Your task to perform on an android device: Open Google Maps and go to "Timeline" Image 0: 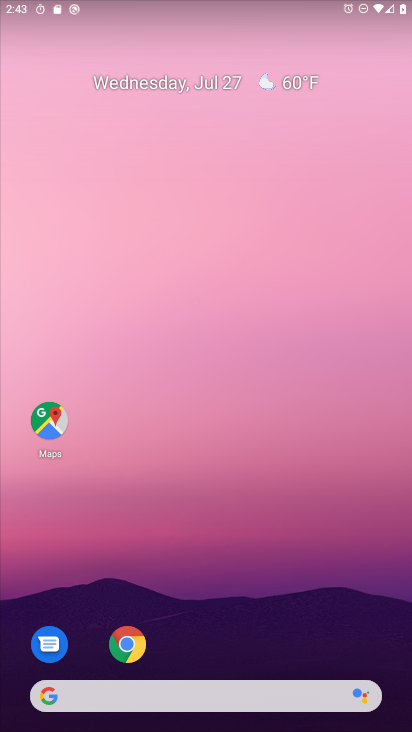
Step 0: drag from (239, 608) to (403, 671)
Your task to perform on an android device: Open Google Maps and go to "Timeline" Image 1: 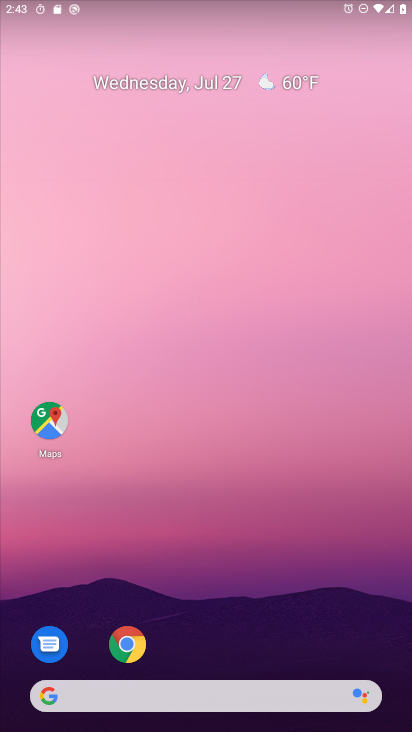
Step 1: click (40, 419)
Your task to perform on an android device: Open Google Maps and go to "Timeline" Image 2: 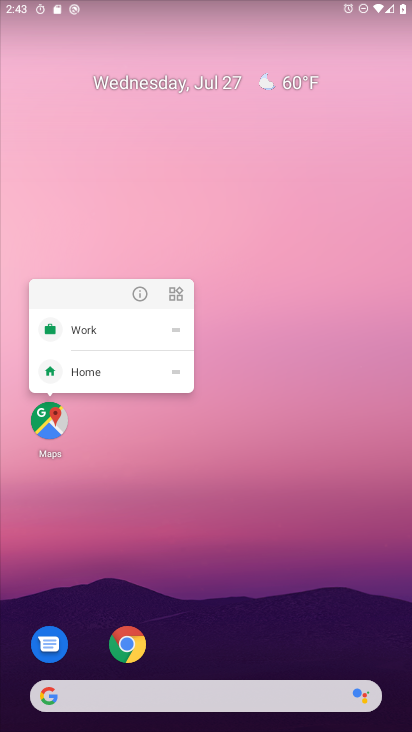
Step 2: drag from (160, 620) to (220, 304)
Your task to perform on an android device: Open Google Maps and go to "Timeline" Image 3: 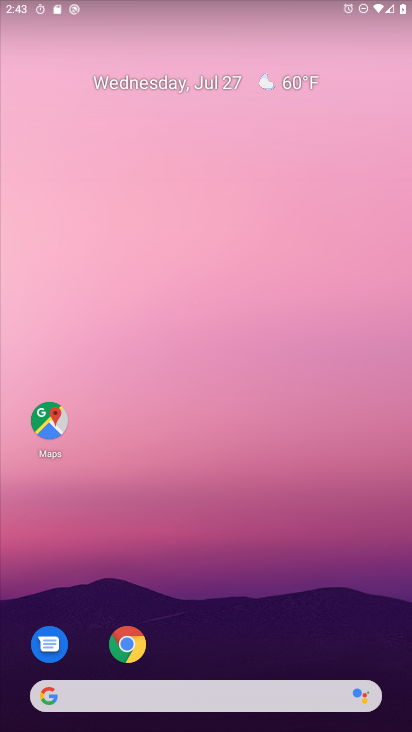
Step 3: drag from (200, 524) to (274, 249)
Your task to perform on an android device: Open Google Maps and go to "Timeline" Image 4: 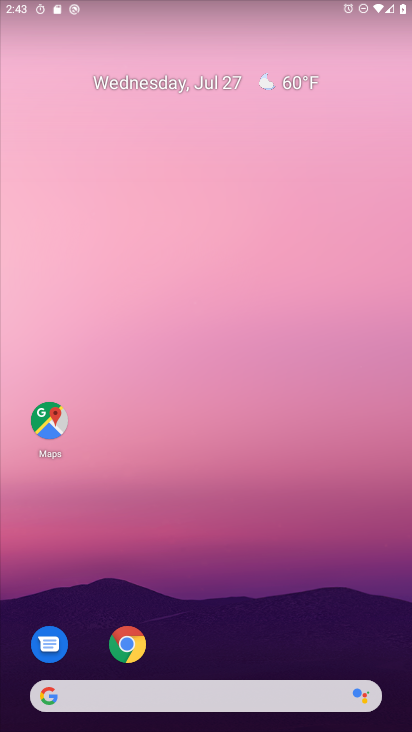
Step 4: drag from (202, 601) to (261, 151)
Your task to perform on an android device: Open Google Maps and go to "Timeline" Image 5: 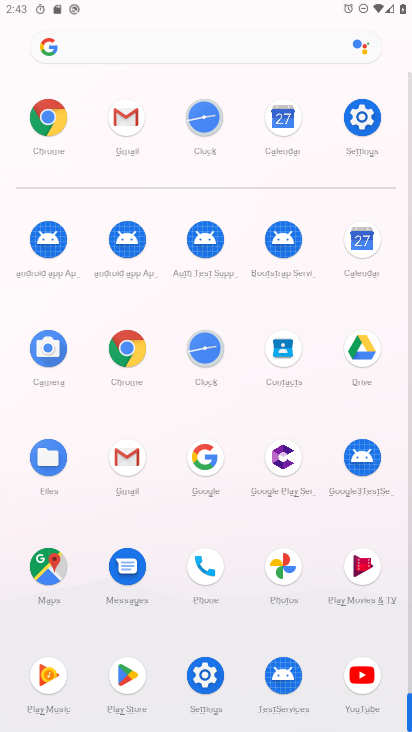
Step 5: click (47, 559)
Your task to perform on an android device: Open Google Maps and go to "Timeline" Image 6: 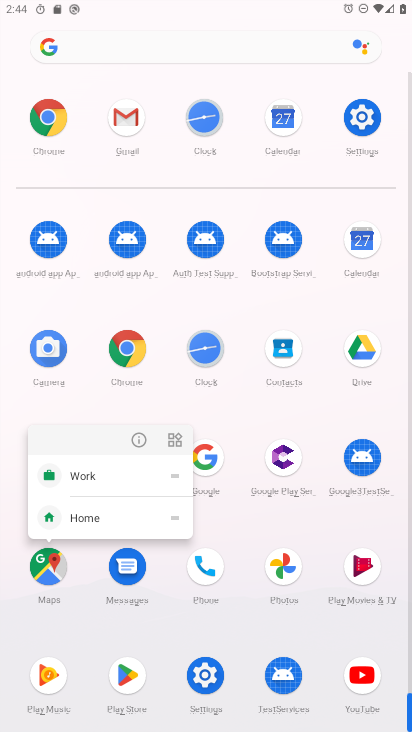
Step 6: click (132, 436)
Your task to perform on an android device: Open Google Maps and go to "Timeline" Image 7: 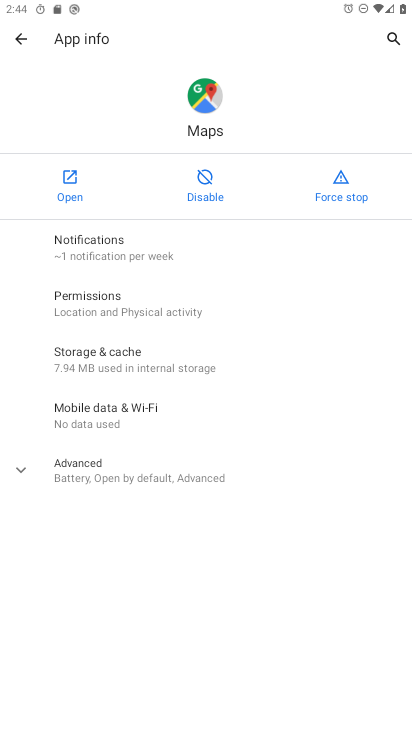
Step 7: click (74, 191)
Your task to perform on an android device: Open Google Maps and go to "Timeline" Image 8: 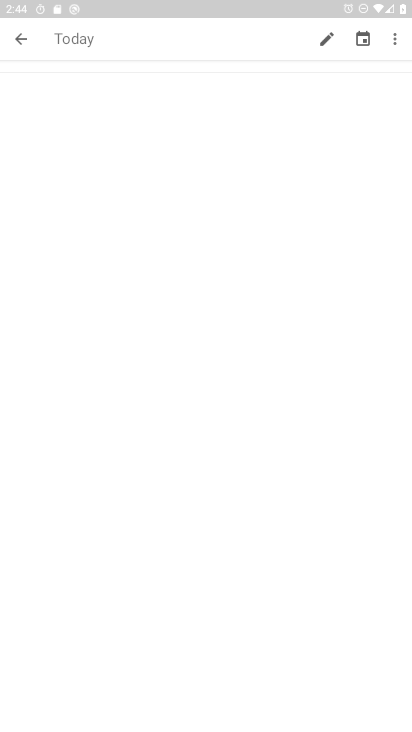
Step 8: click (27, 48)
Your task to perform on an android device: Open Google Maps and go to "Timeline" Image 9: 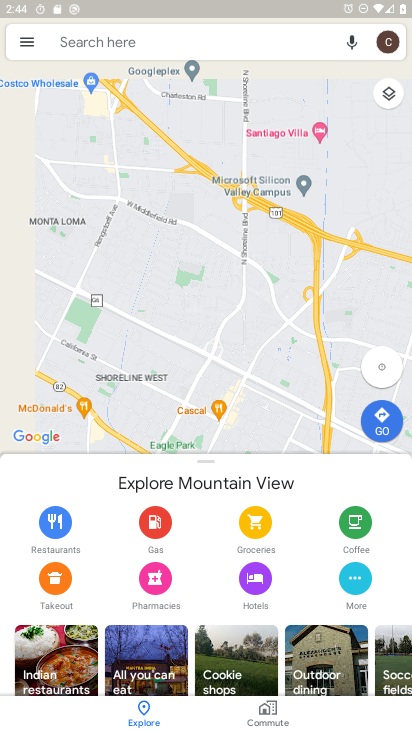
Step 9: click (14, 48)
Your task to perform on an android device: Open Google Maps and go to "Timeline" Image 10: 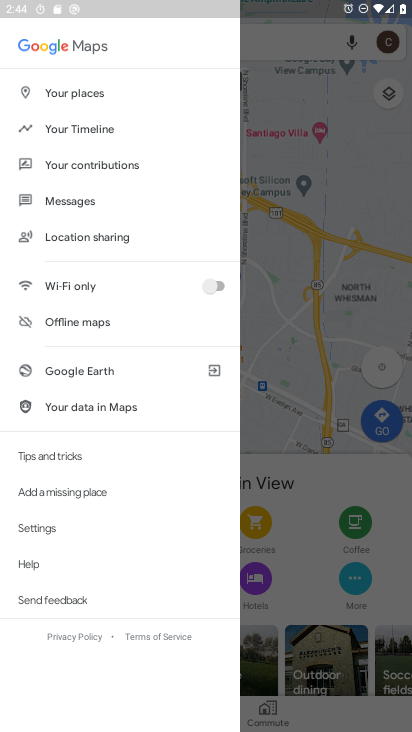
Step 10: click (95, 132)
Your task to perform on an android device: Open Google Maps and go to "Timeline" Image 11: 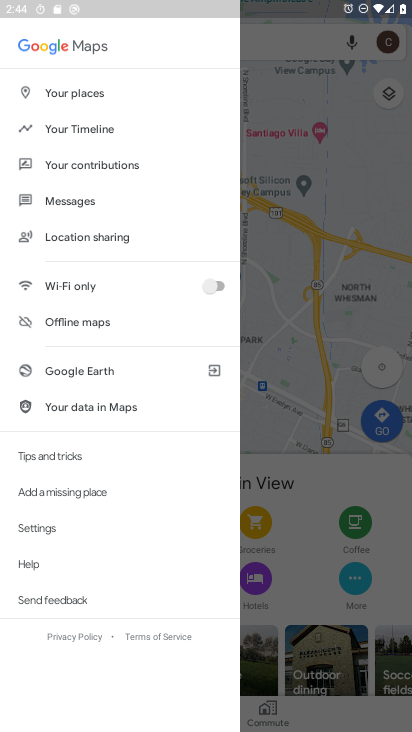
Step 11: click (100, 129)
Your task to perform on an android device: Open Google Maps and go to "Timeline" Image 12: 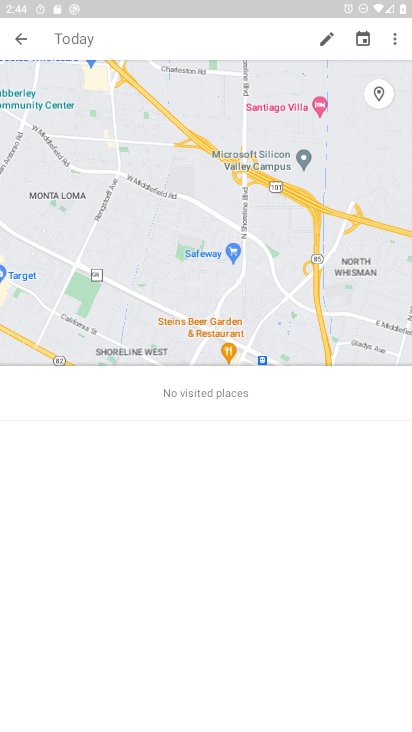
Step 12: task complete